Your task to perform on an android device: Add "razer blade" to the cart on target, then select checkout. Image 0: 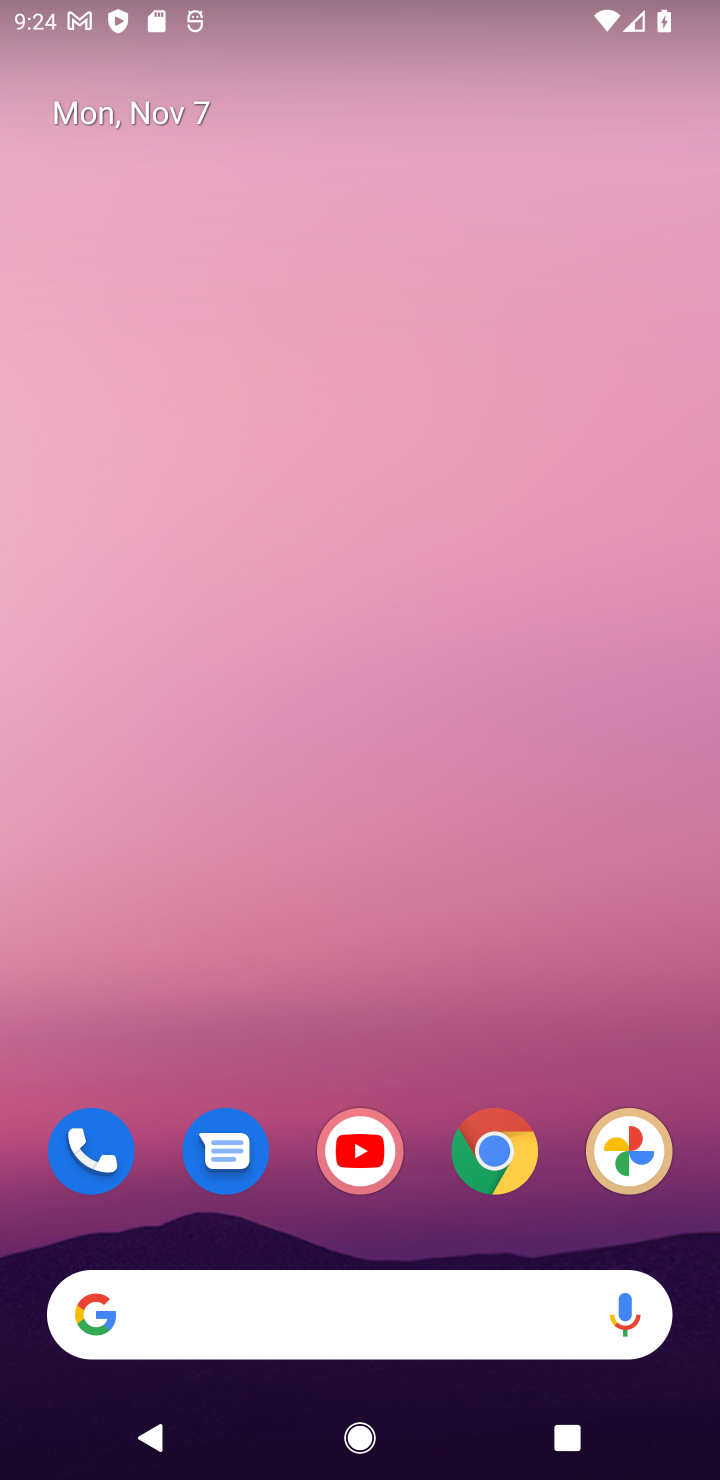
Step 0: press home button
Your task to perform on an android device: Add "razer blade" to the cart on target, then select checkout. Image 1: 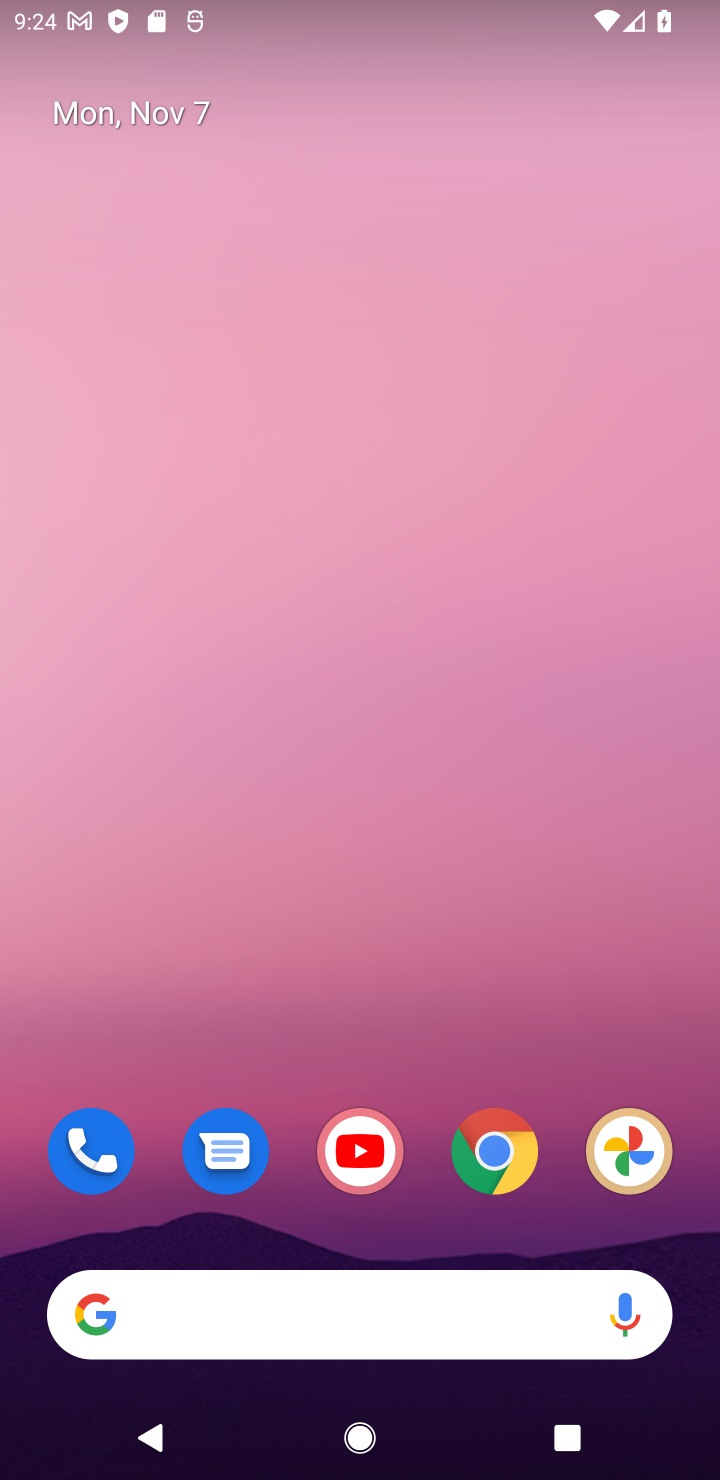
Step 1: click (507, 1145)
Your task to perform on an android device: Add "razer blade" to the cart on target, then select checkout. Image 2: 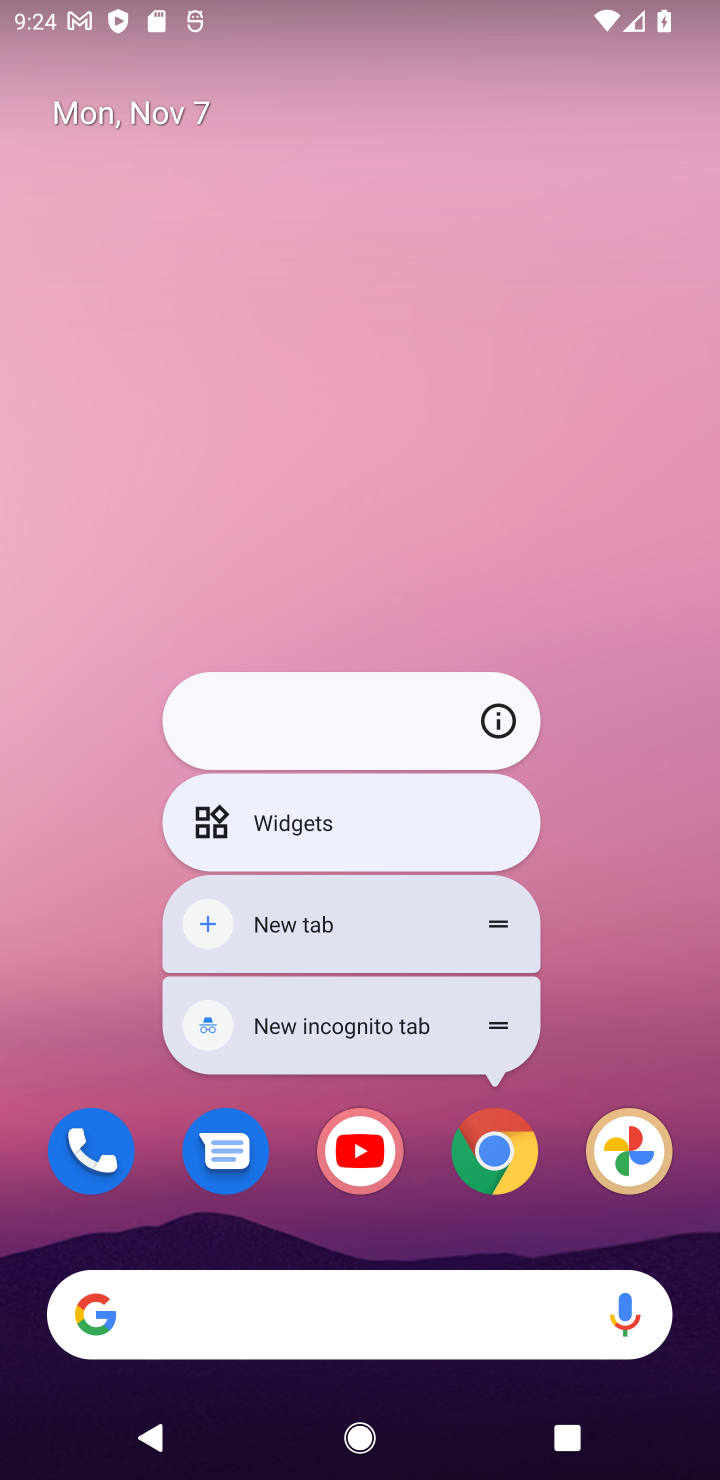
Step 2: click (505, 1152)
Your task to perform on an android device: Add "razer blade" to the cart on target, then select checkout. Image 3: 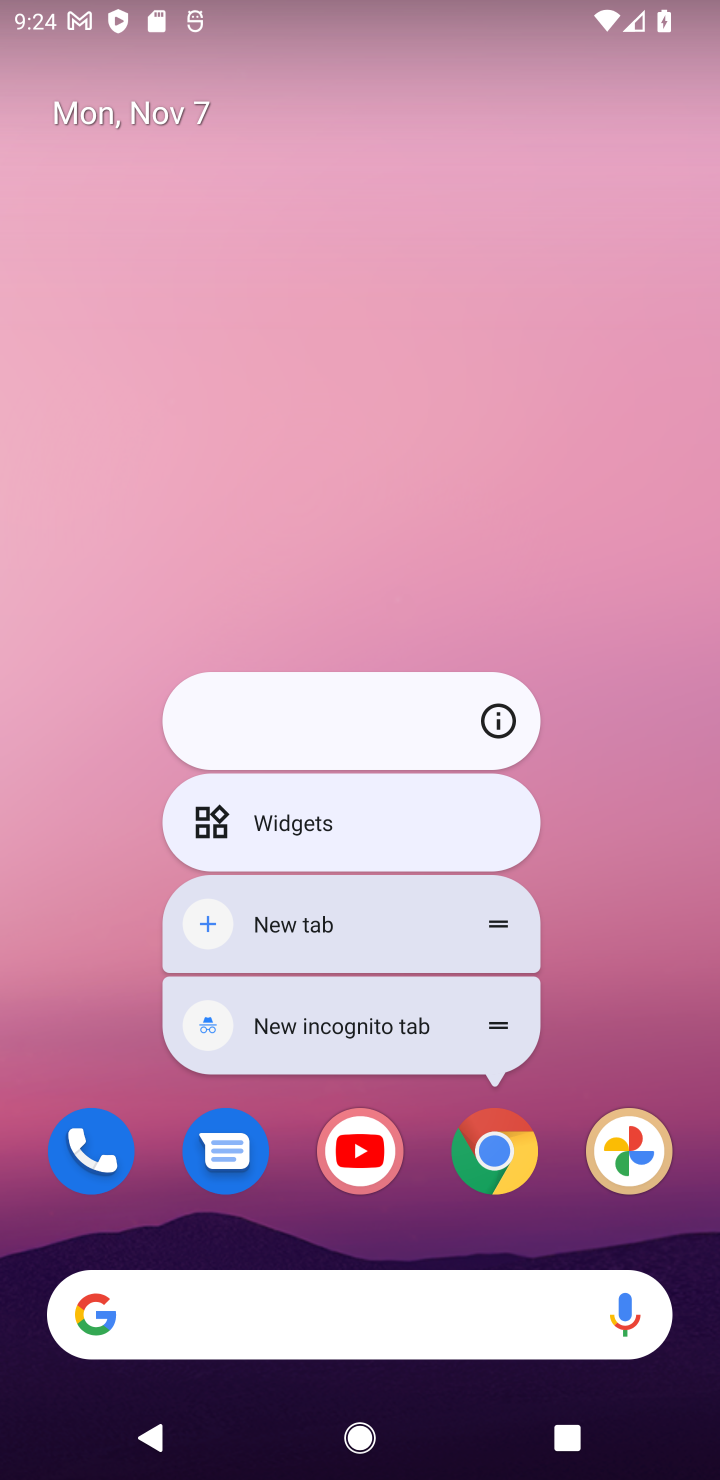
Step 3: click (505, 1156)
Your task to perform on an android device: Add "razer blade" to the cart on target, then select checkout. Image 4: 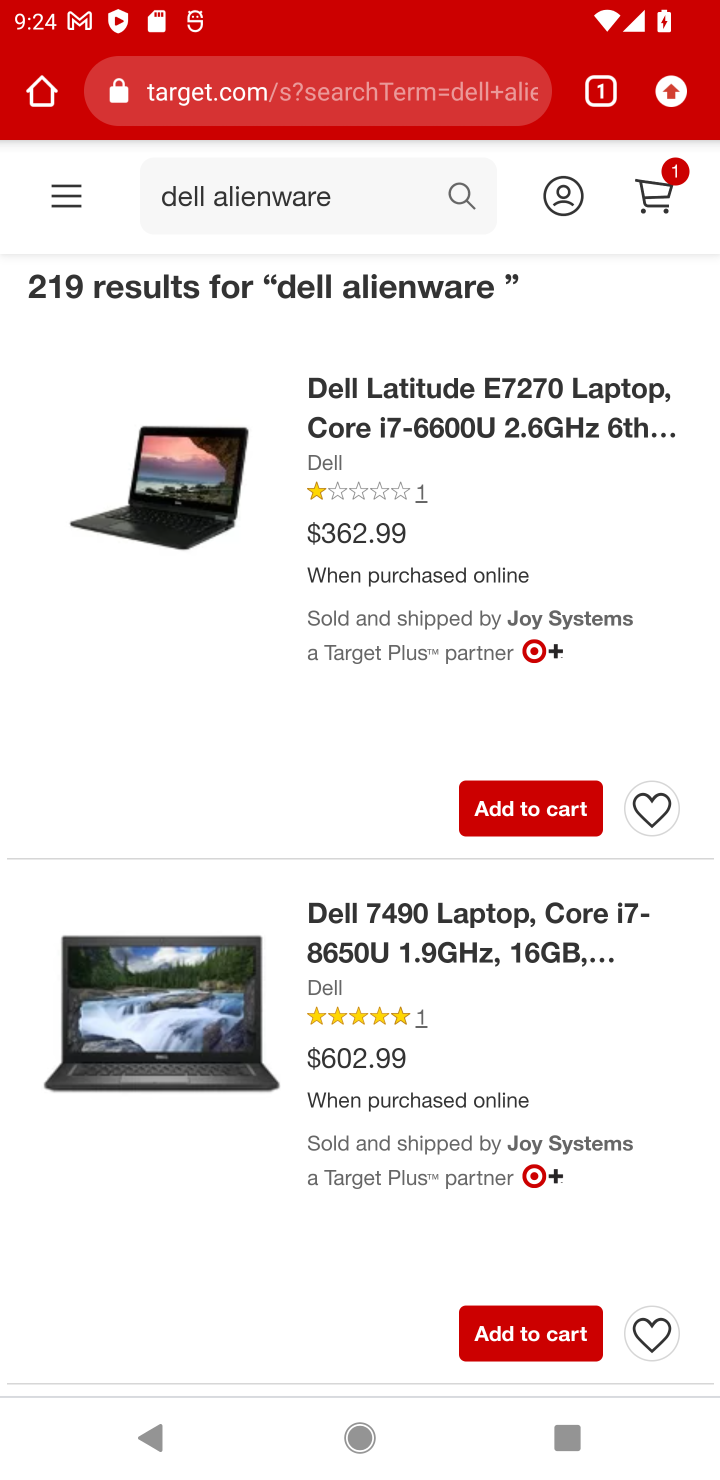
Step 4: click (365, 87)
Your task to perform on an android device: Add "razer blade" to the cart on target, then select checkout. Image 5: 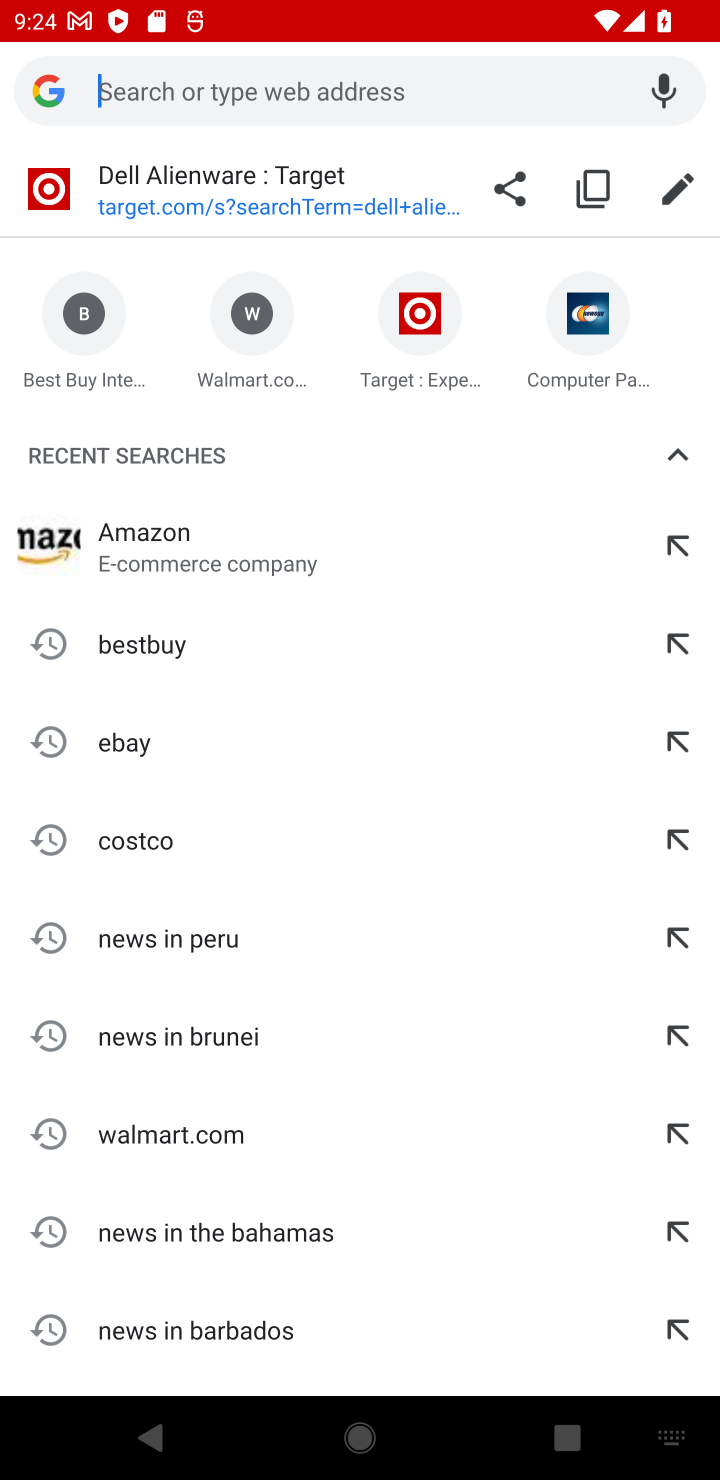
Step 5: type "razer blade"
Your task to perform on an android device: Add "razer blade" to the cart on target, then select checkout. Image 6: 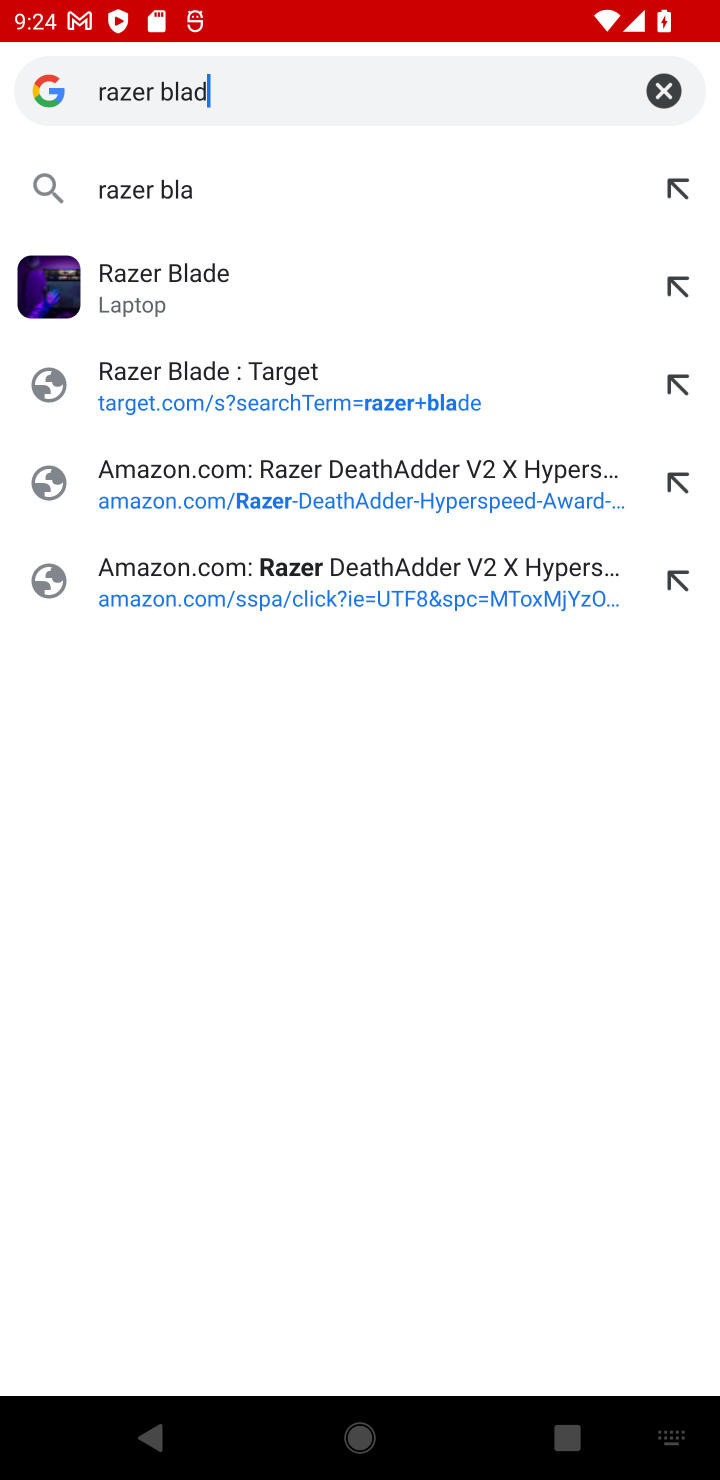
Step 6: press enter
Your task to perform on an android device: Add "razer blade" to the cart on target, then select checkout. Image 7: 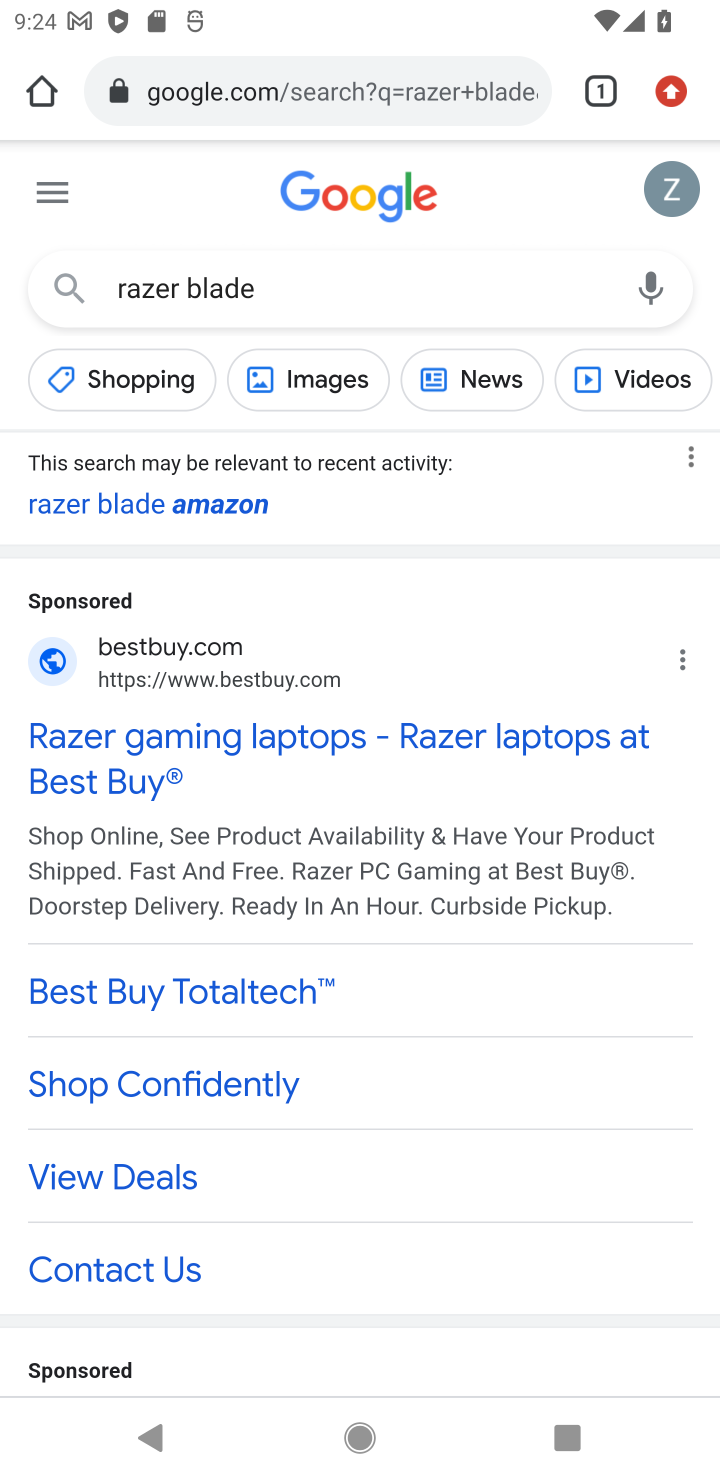
Step 7: press back button
Your task to perform on an android device: Add "razer blade" to the cart on target, then select checkout. Image 8: 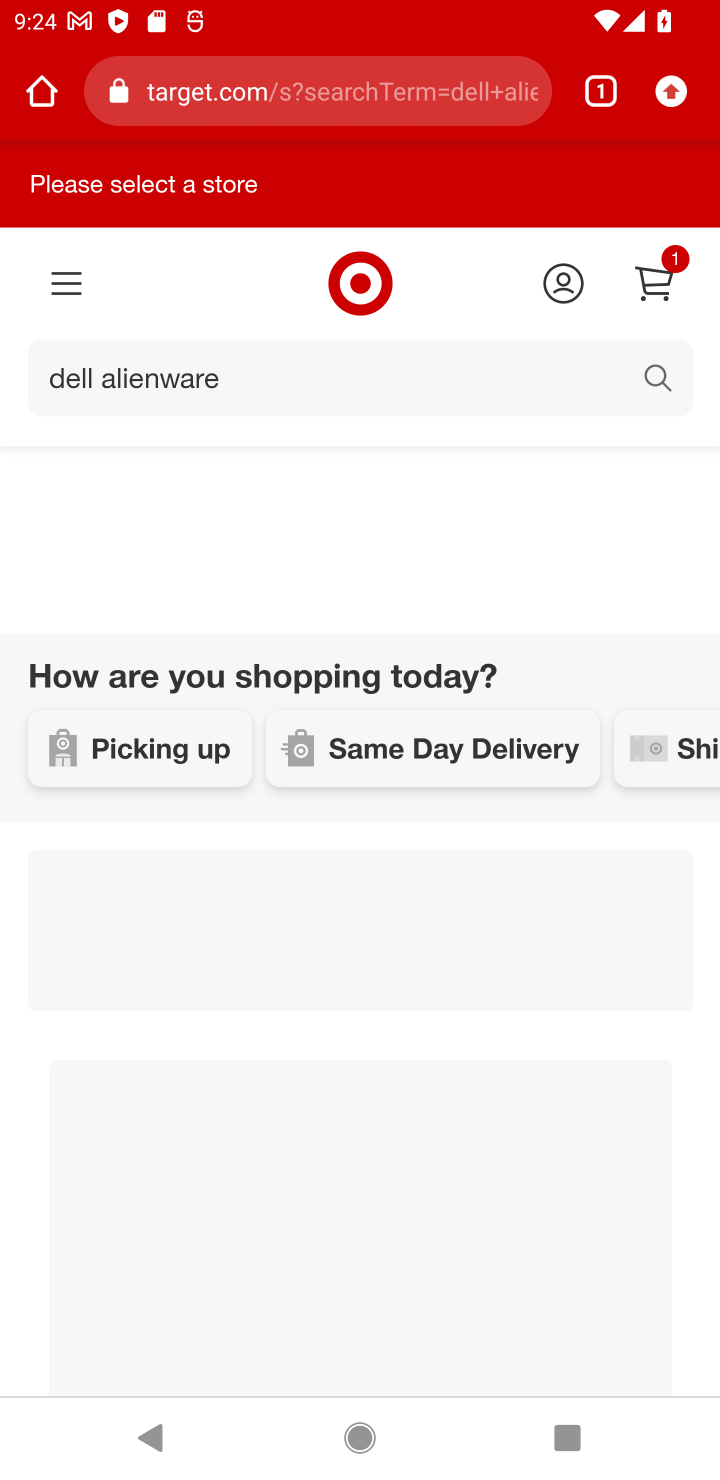
Step 8: click (645, 376)
Your task to perform on an android device: Add "razer blade" to the cart on target, then select checkout. Image 9: 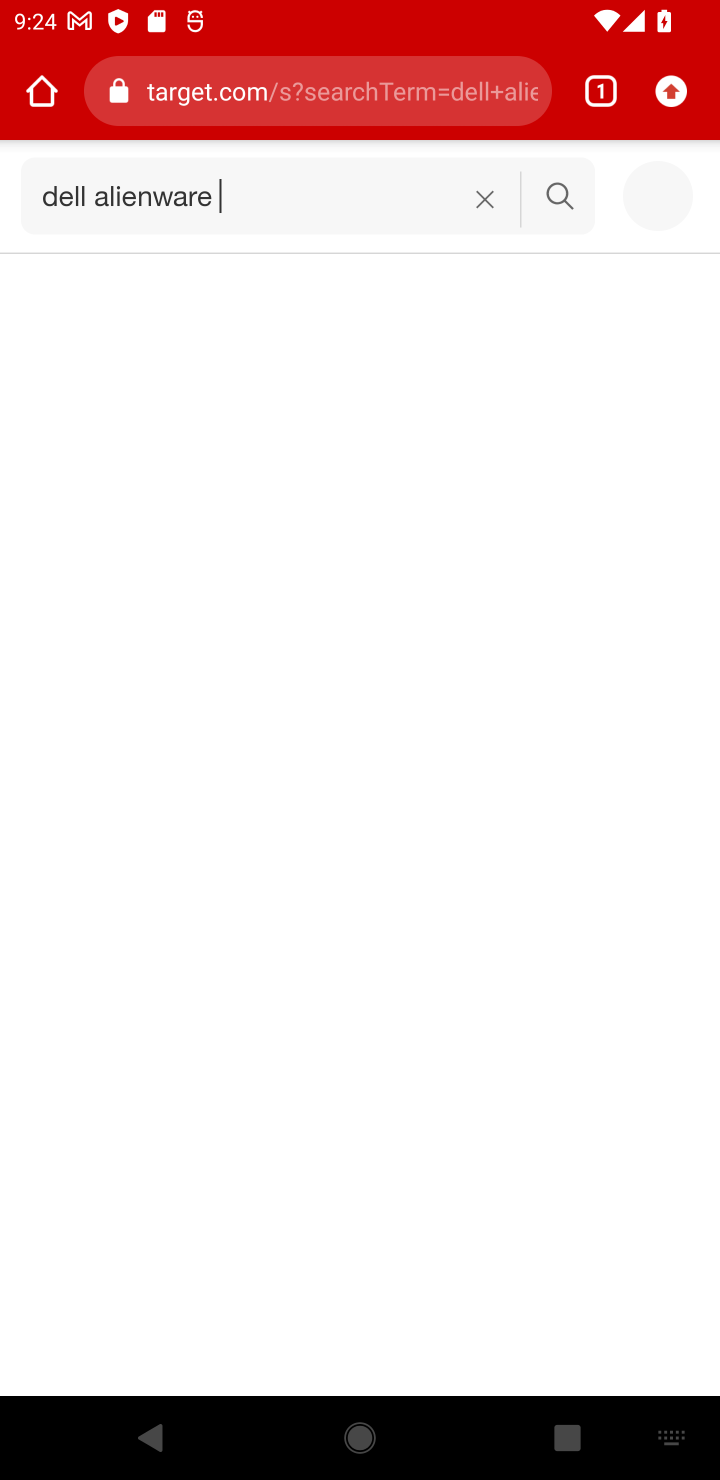
Step 9: click (481, 194)
Your task to perform on an android device: Add "razer blade" to the cart on target, then select checkout. Image 10: 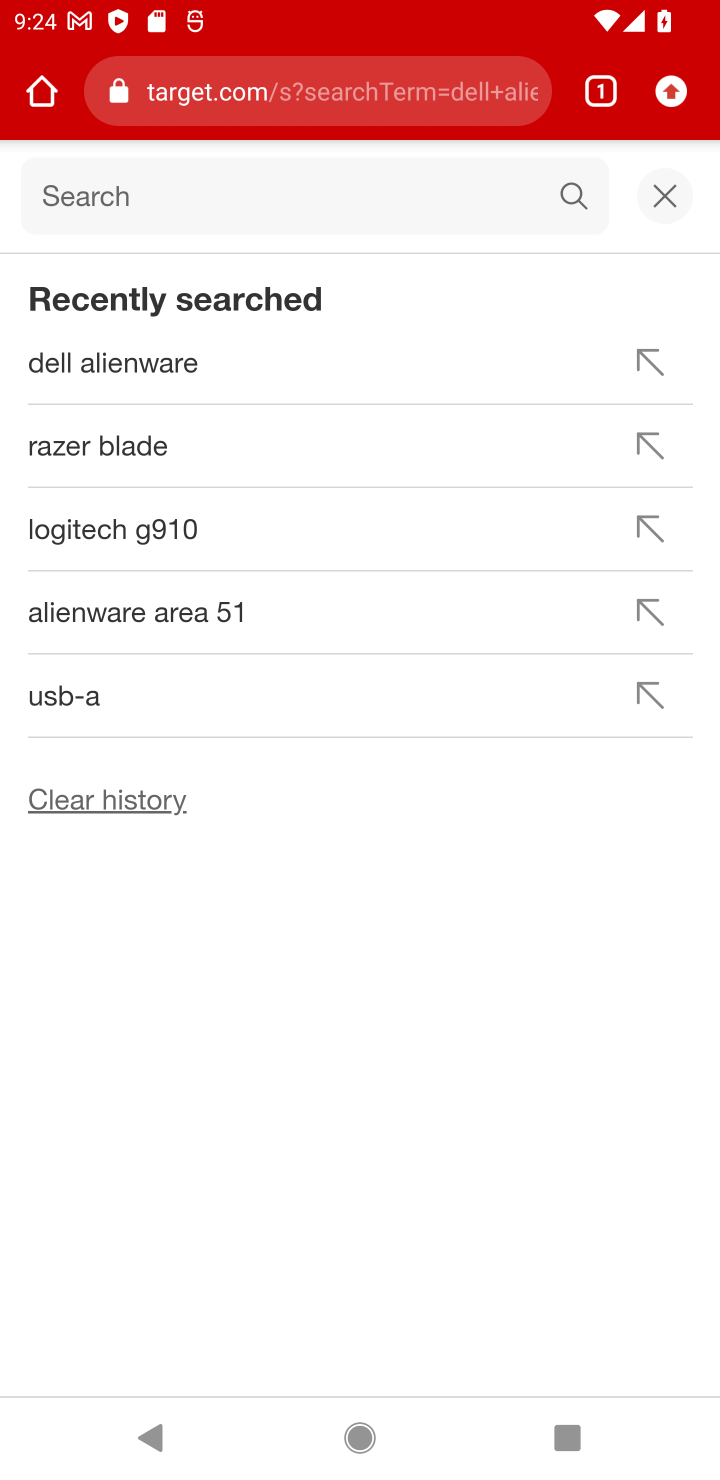
Step 10: click (55, 198)
Your task to perform on an android device: Add "razer blade" to the cart on target, then select checkout. Image 11: 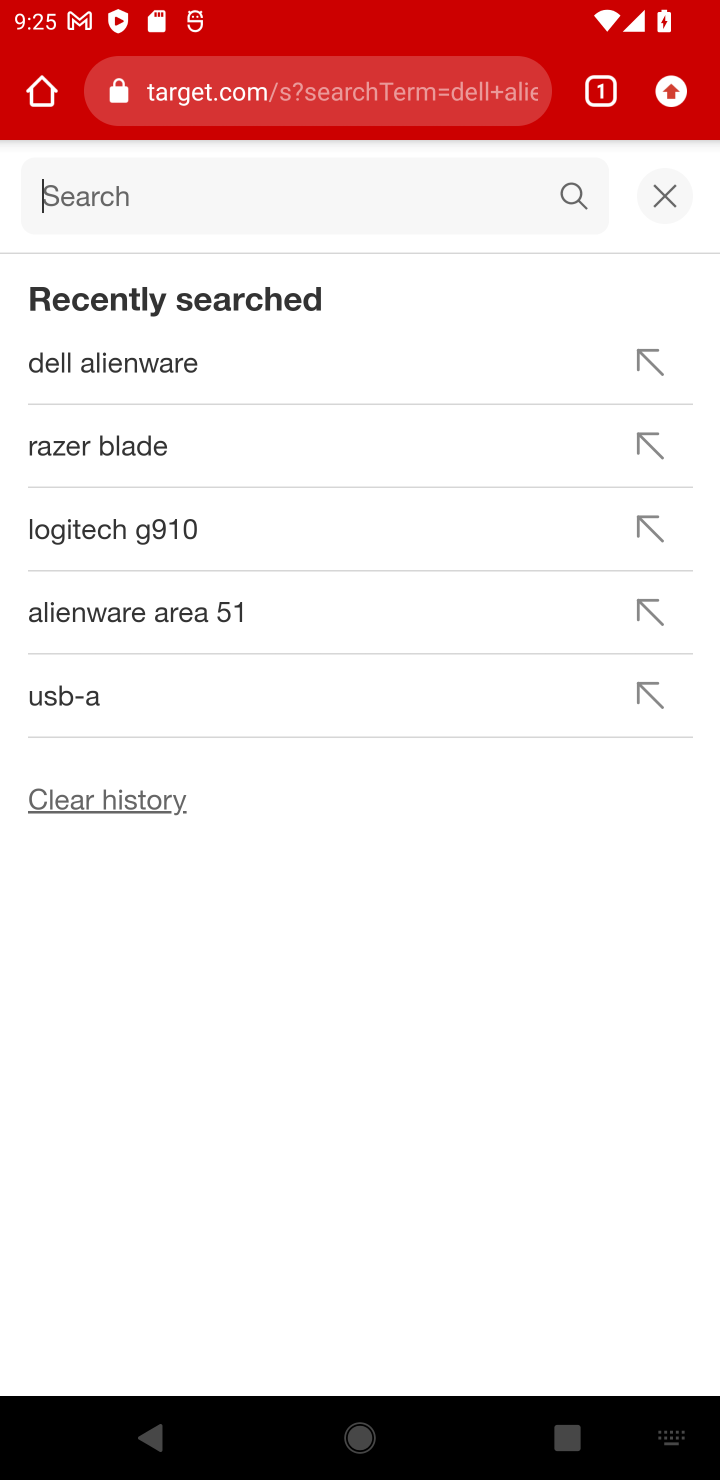
Step 11: type "razer blade"
Your task to perform on an android device: Add "razer blade" to the cart on target, then select checkout. Image 12: 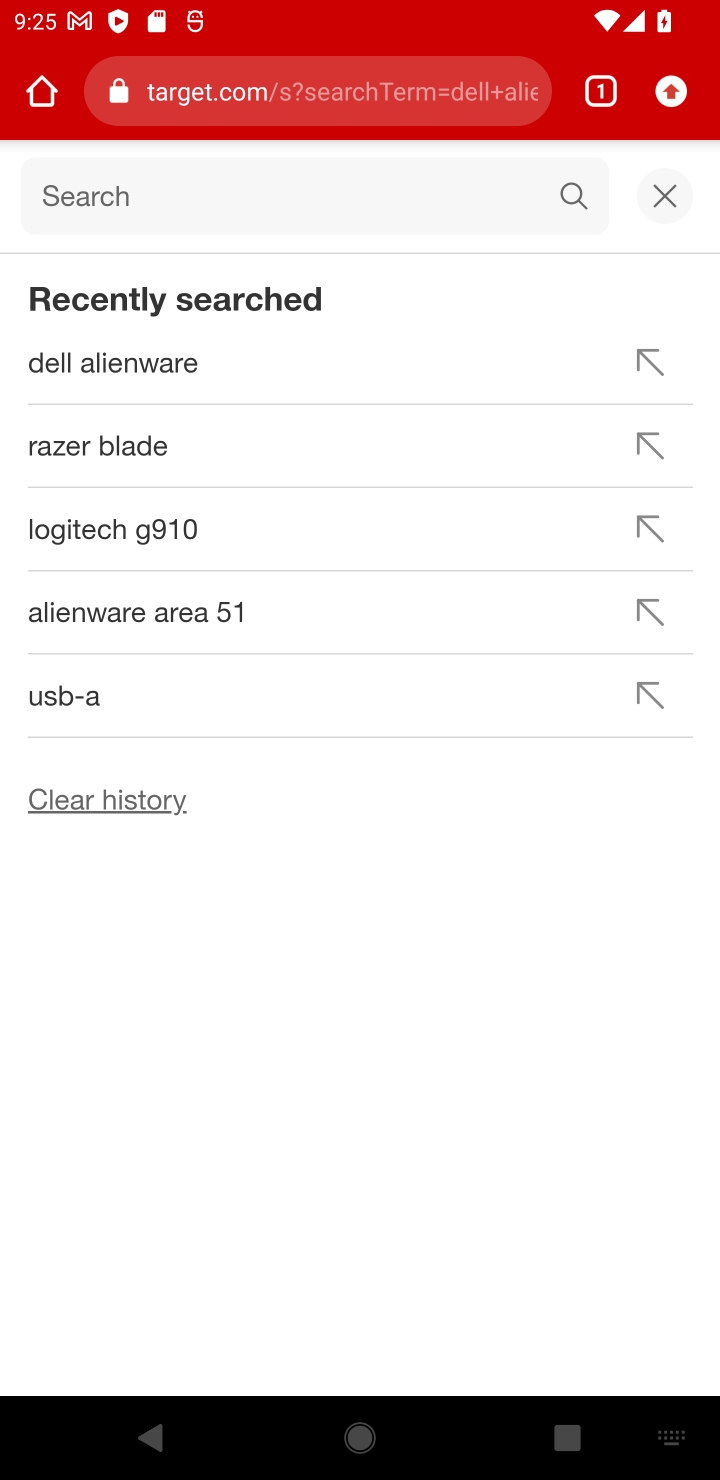
Step 12: press enter
Your task to perform on an android device: Add "razer blade" to the cart on target, then select checkout. Image 13: 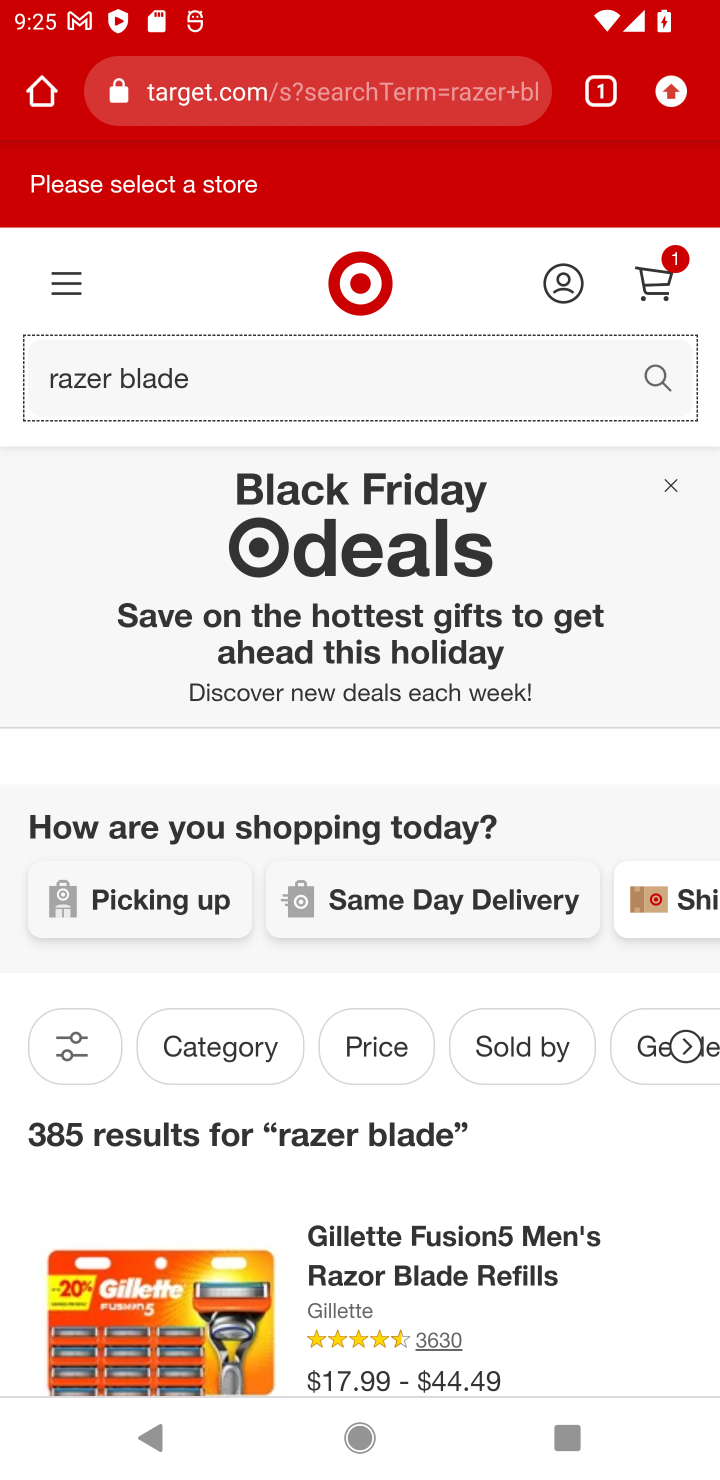
Step 13: drag from (348, 1047) to (581, 361)
Your task to perform on an android device: Add "razer blade" to the cart on target, then select checkout. Image 14: 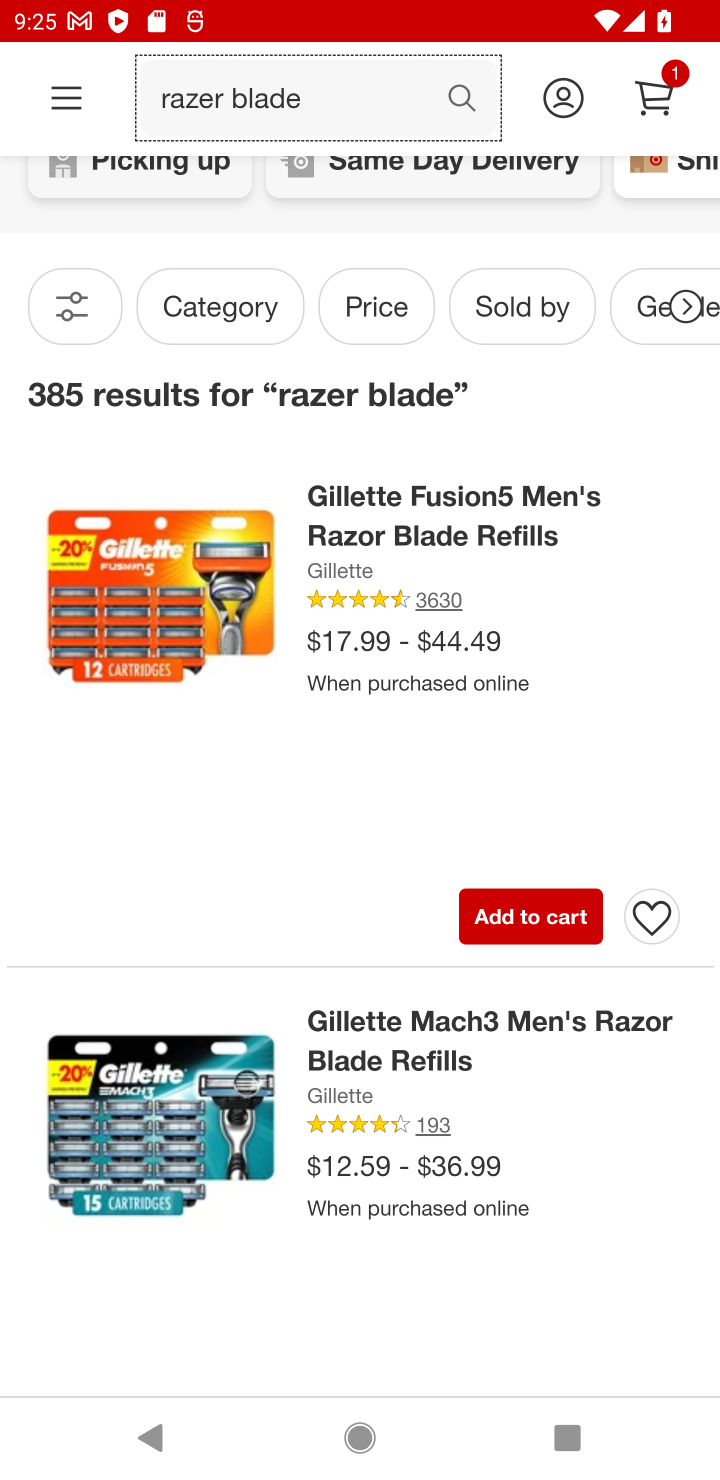
Step 14: click (378, 529)
Your task to perform on an android device: Add "razer blade" to the cart on target, then select checkout. Image 15: 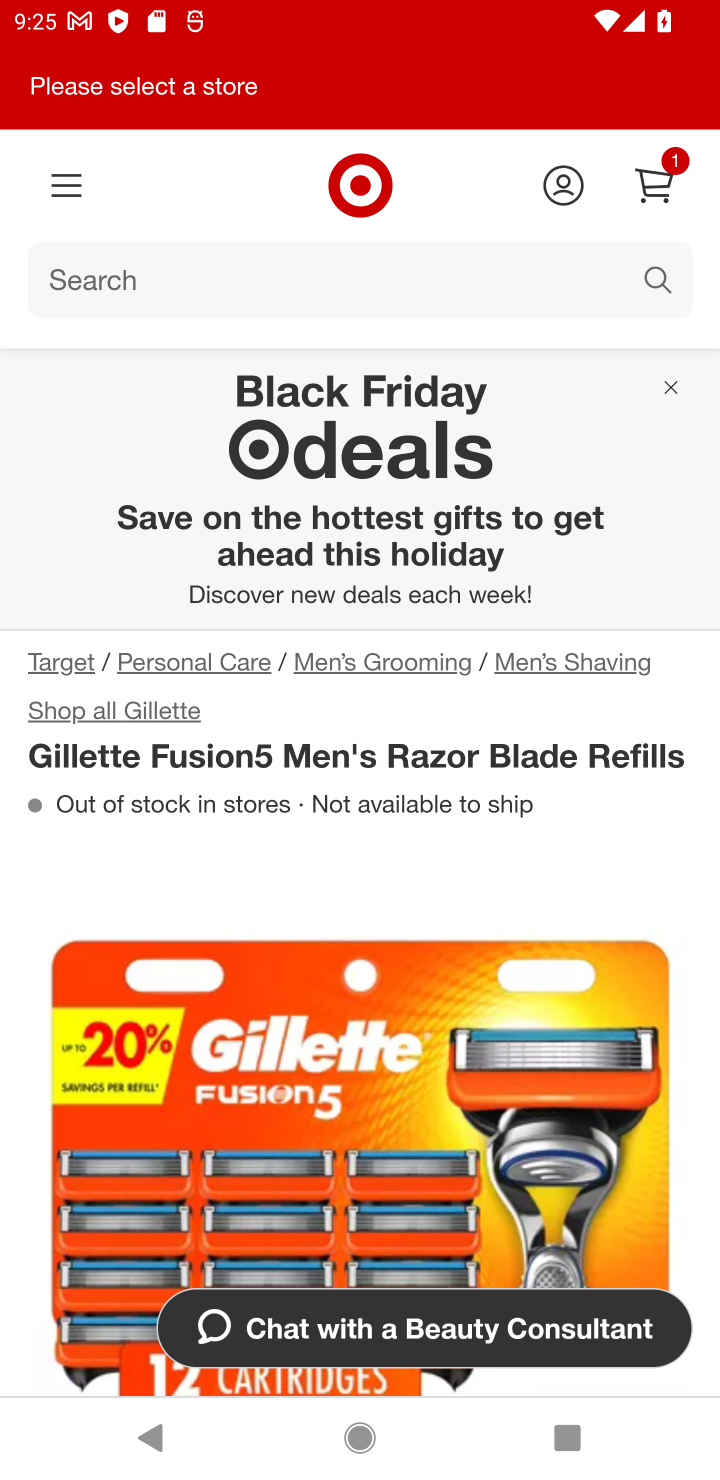
Step 15: drag from (239, 1027) to (498, 234)
Your task to perform on an android device: Add "razer blade" to the cart on target, then select checkout. Image 16: 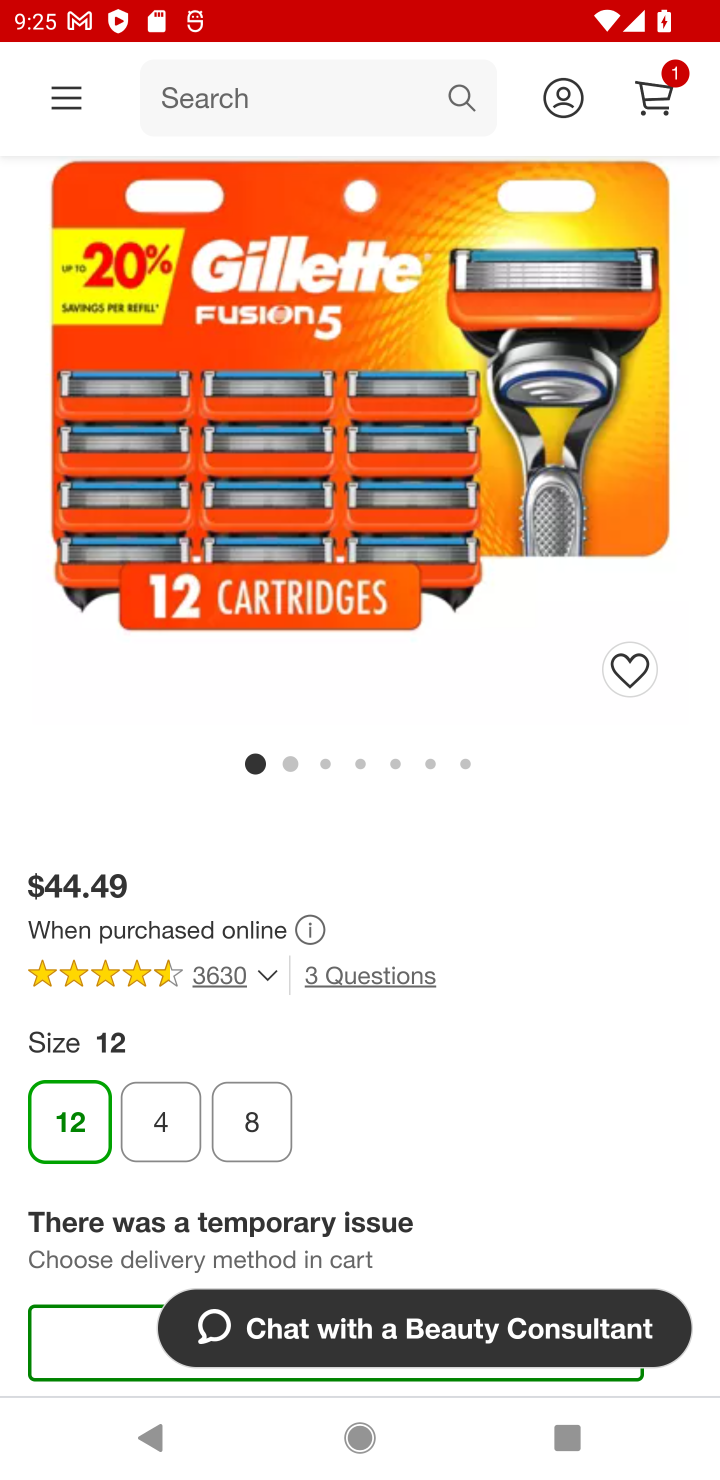
Step 16: drag from (439, 944) to (579, 378)
Your task to perform on an android device: Add "razer blade" to the cart on target, then select checkout. Image 17: 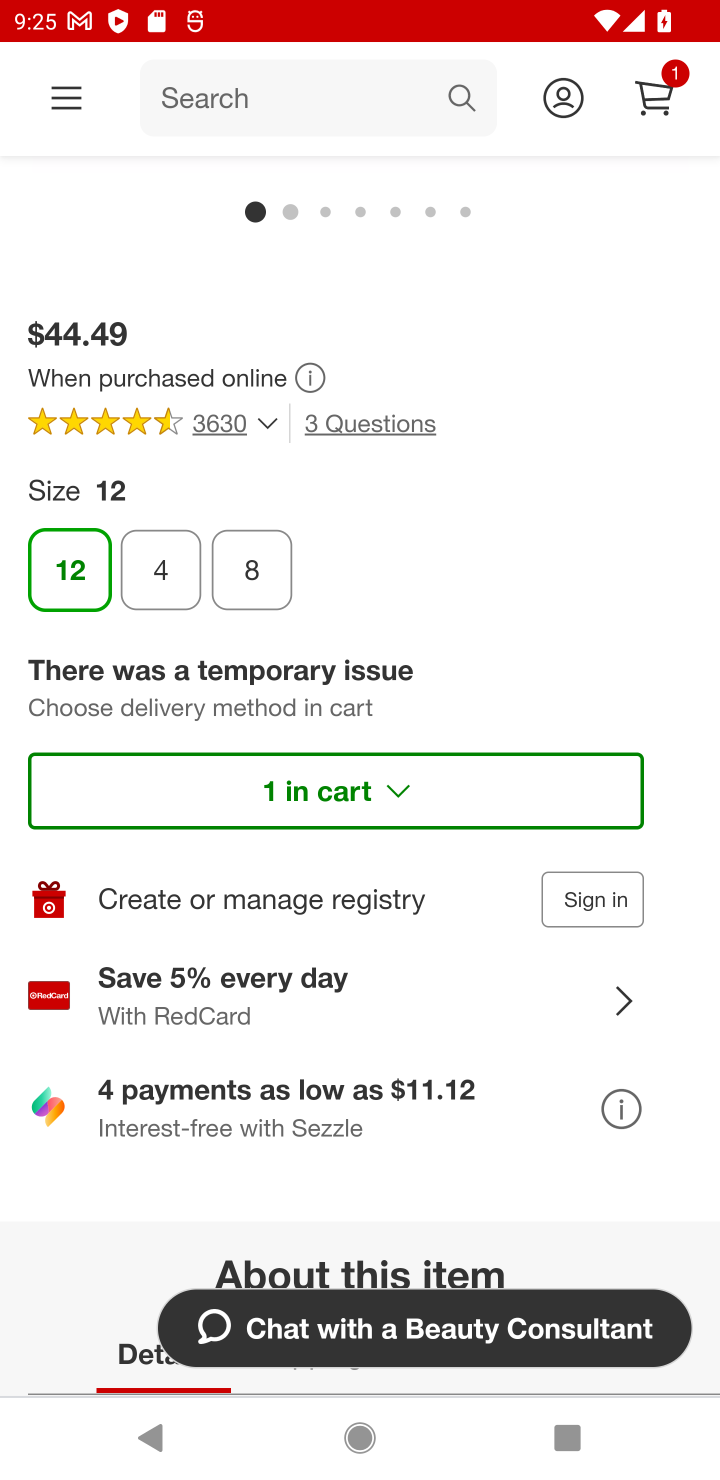
Step 17: drag from (181, 1245) to (480, 1265)
Your task to perform on an android device: Add "razer blade" to the cart on target, then select checkout. Image 18: 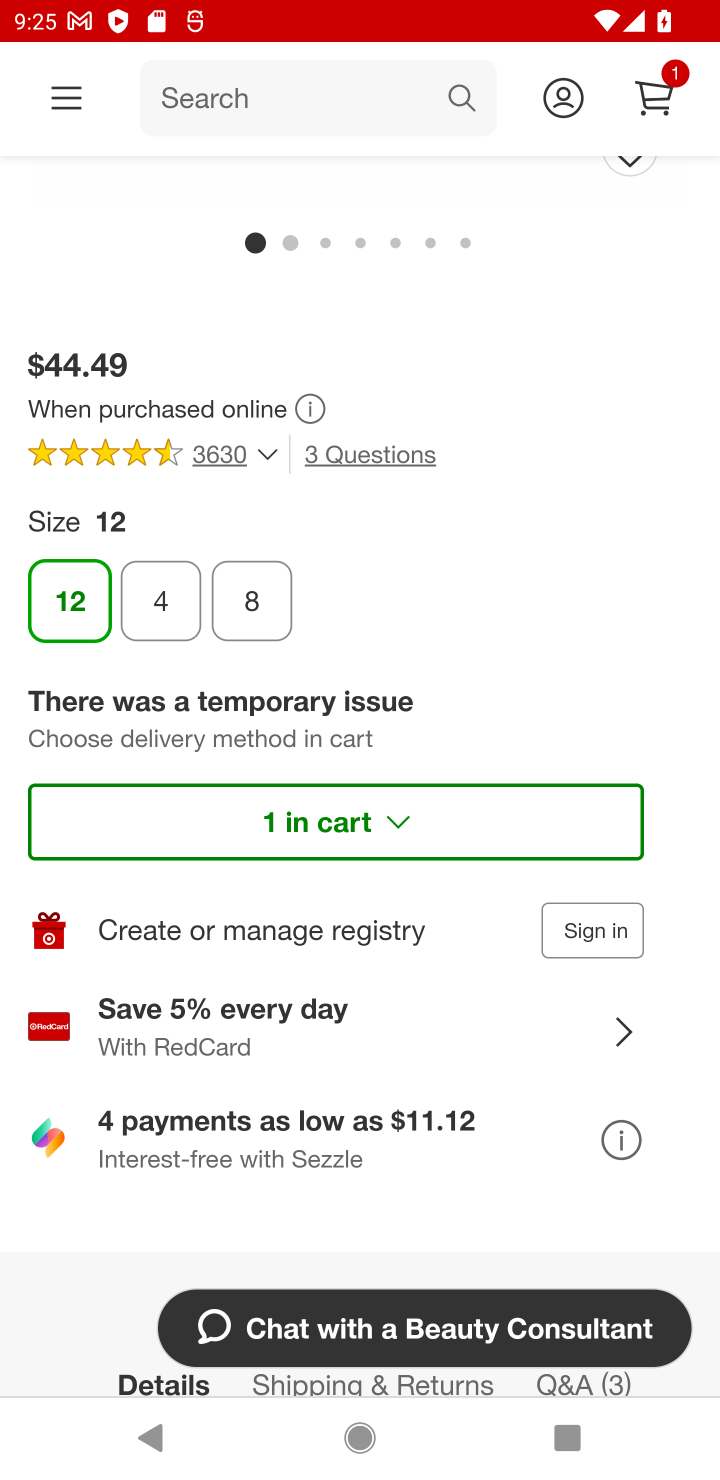
Step 18: click (660, 87)
Your task to perform on an android device: Add "razer blade" to the cart on target, then select checkout. Image 19: 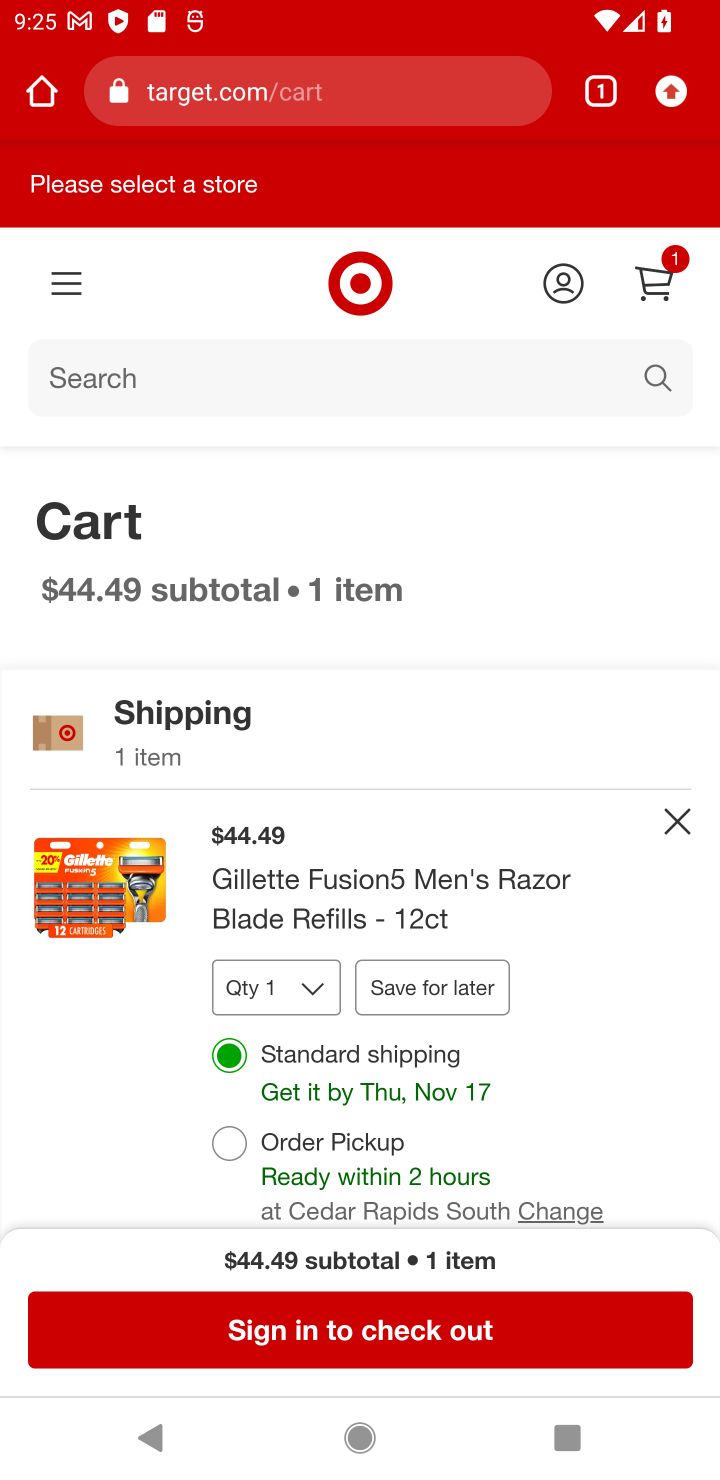
Step 19: click (352, 1329)
Your task to perform on an android device: Add "razer blade" to the cart on target, then select checkout. Image 20: 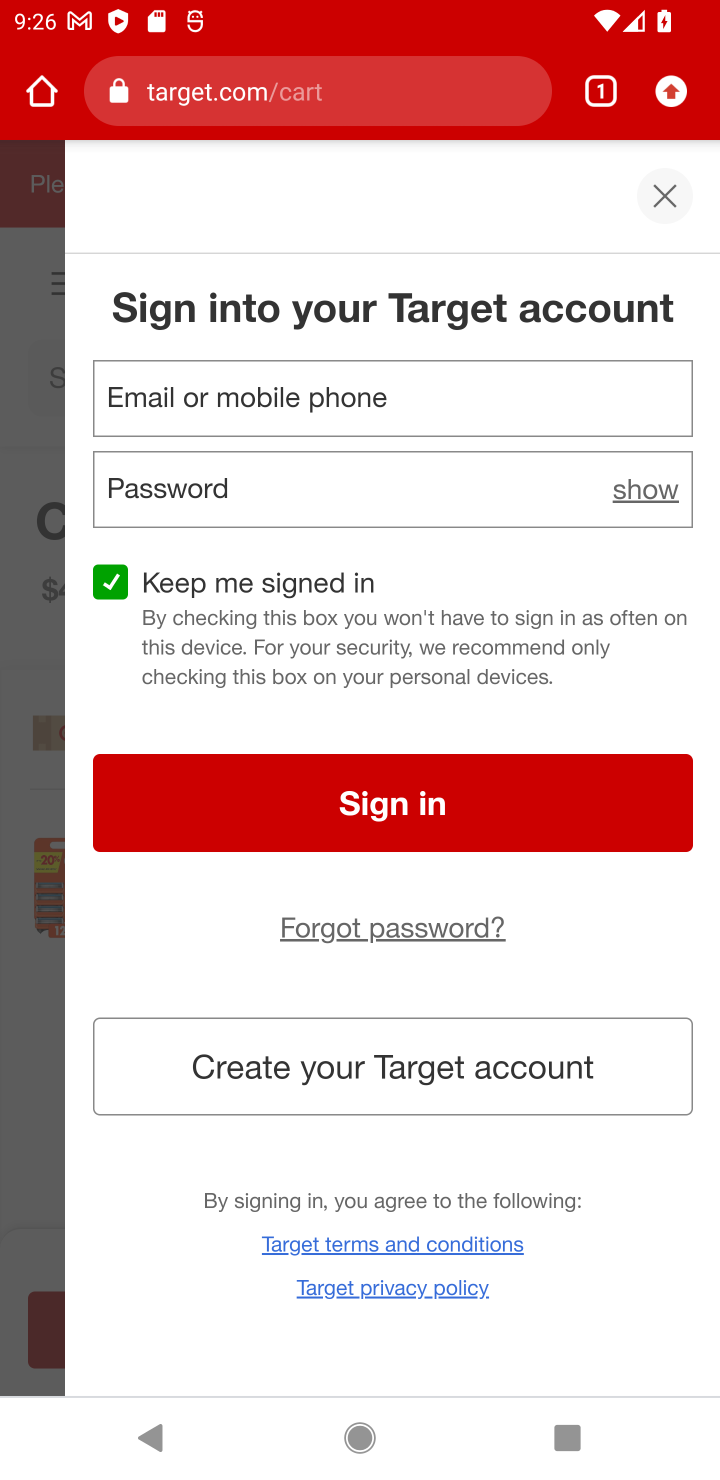
Step 20: task complete